Your task to perform on an android device: turn off picture-in-picture Image 0: 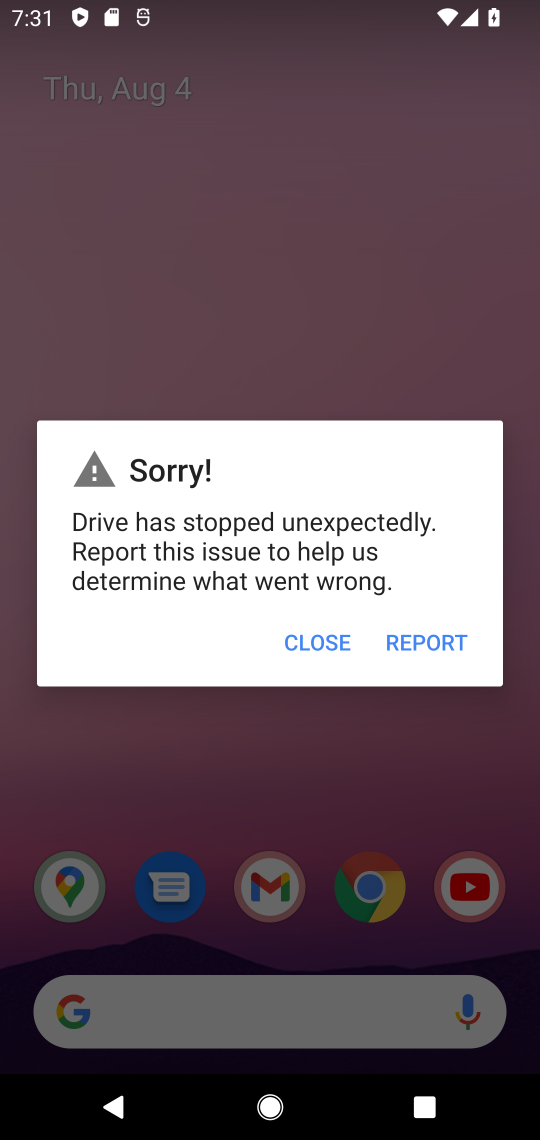
Step 0: click (317, 650)
Your task to perform on an android device: turn off picture-in-picture Image 1: 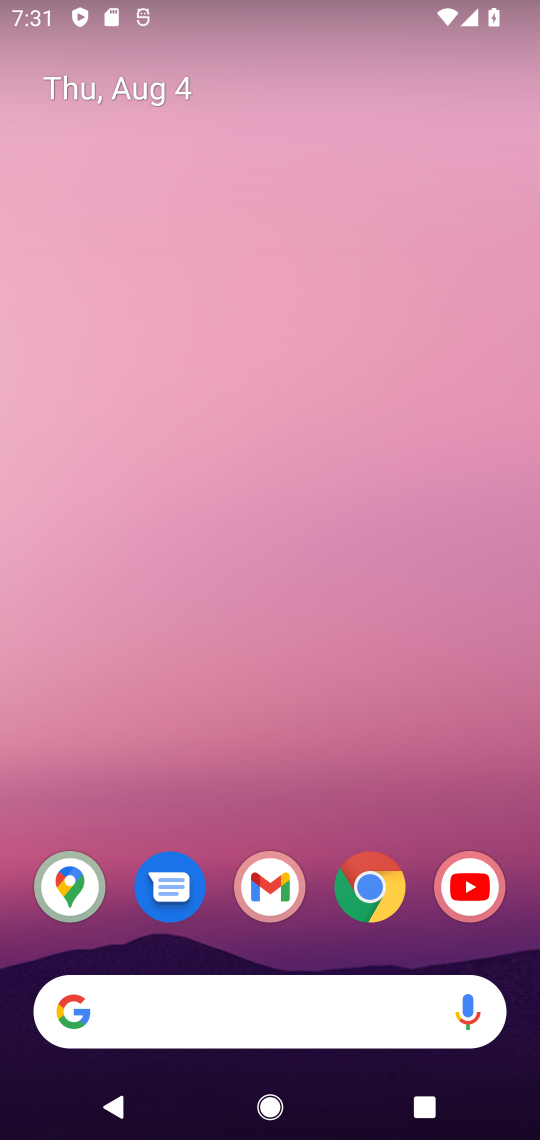
Step 1: click (366, 891)
Your task to perform on an android device: turn off picture-in-picture Image 2: 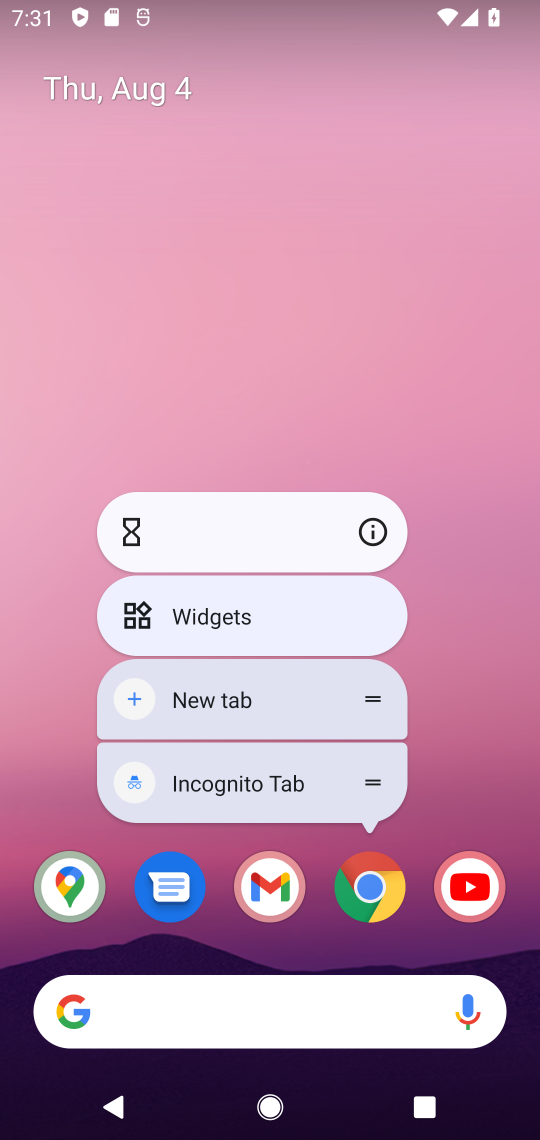
Step 2: click (366, 525)
Your task to perform on an android device: turn off picture-in-picture Image 3: 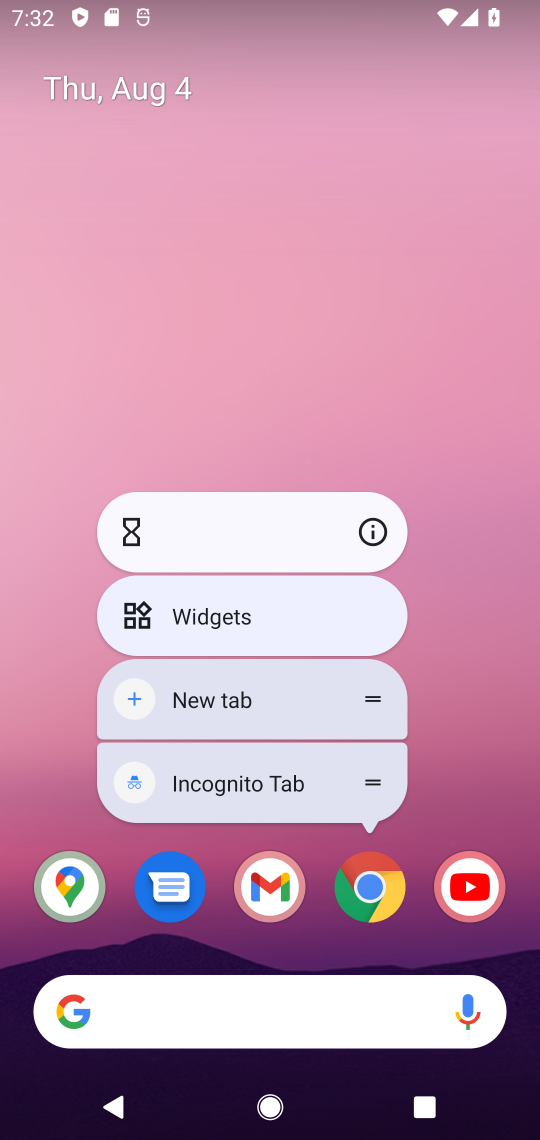
Step 3: click (372, 533)
Your task to perform on an android device: turn off picture-in-picture Image 4: 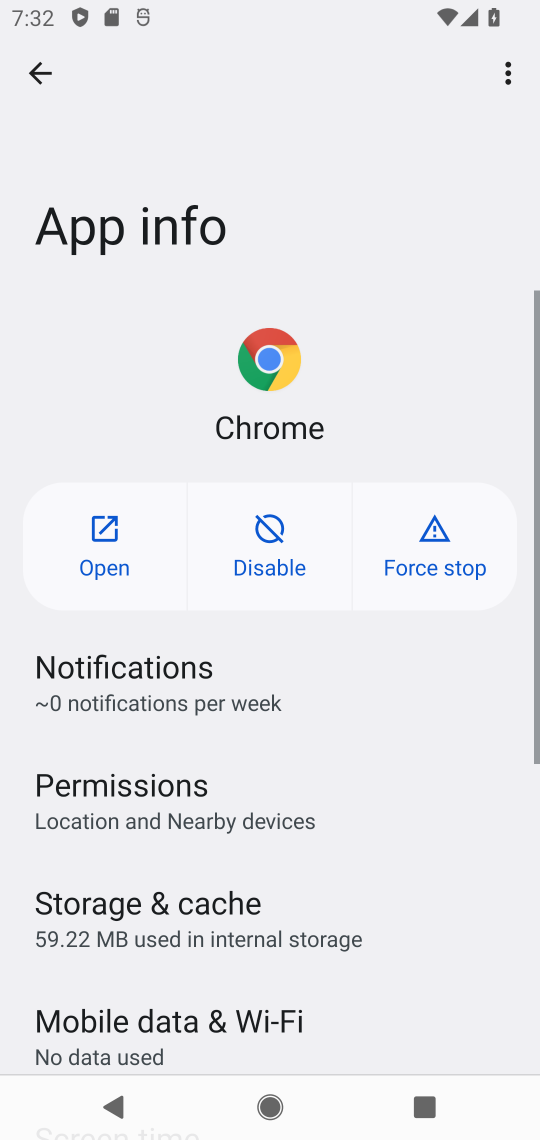
Step 4: drag from (286, 1024) to (204, 532)
Your task to perform on an android device: turn off picture-in-picture Image 5: 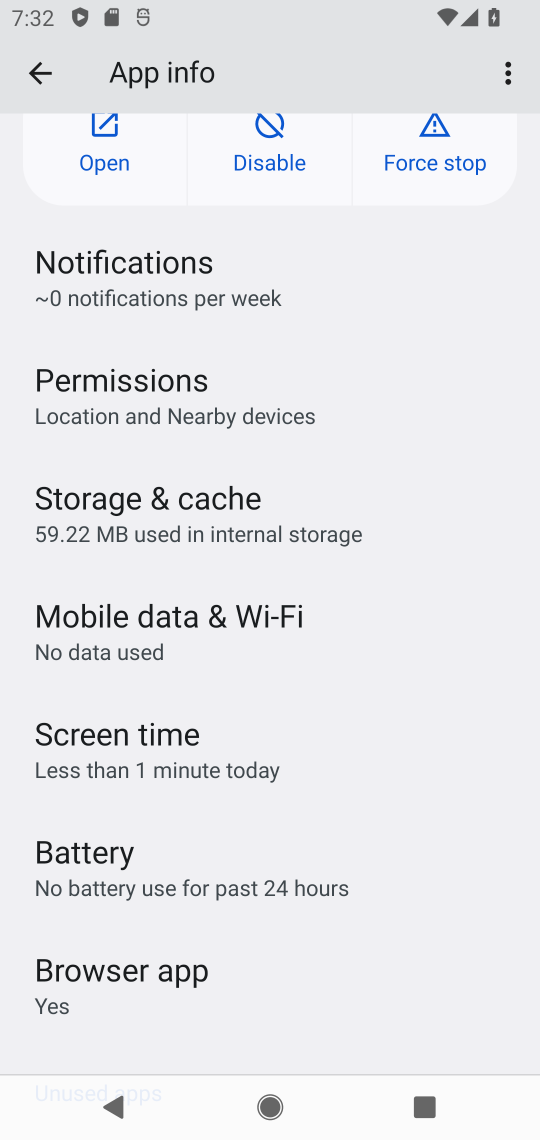
Step 5: drag from (143, 1029) to (118, 442)
Your task to perform on an android device: turn off picture-in-picture Image 6: 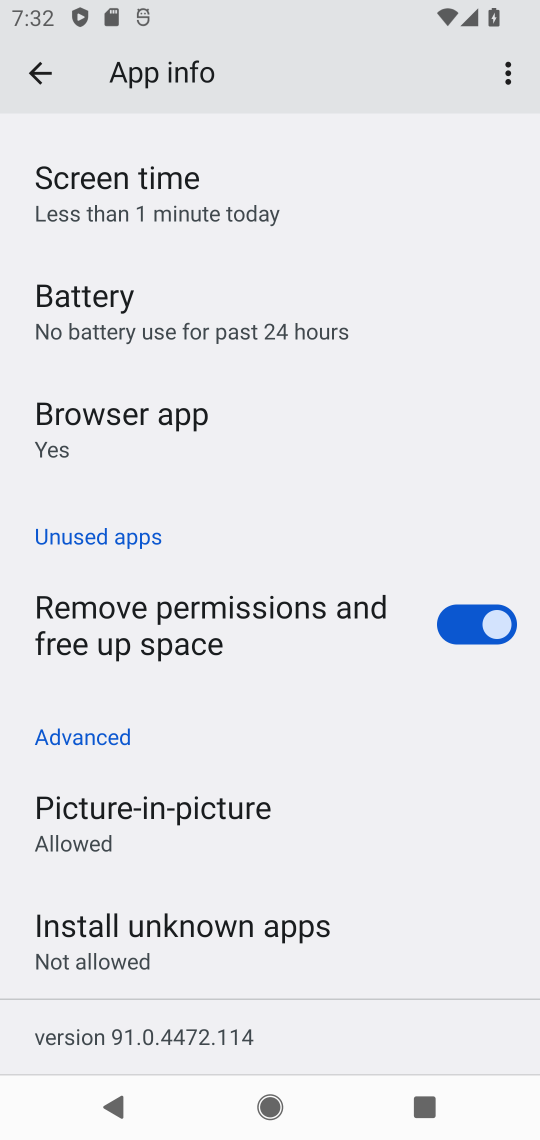
Step 6: click (191, 824)
Your task to perform on an android device: turn off picture-in-picture Image 7: 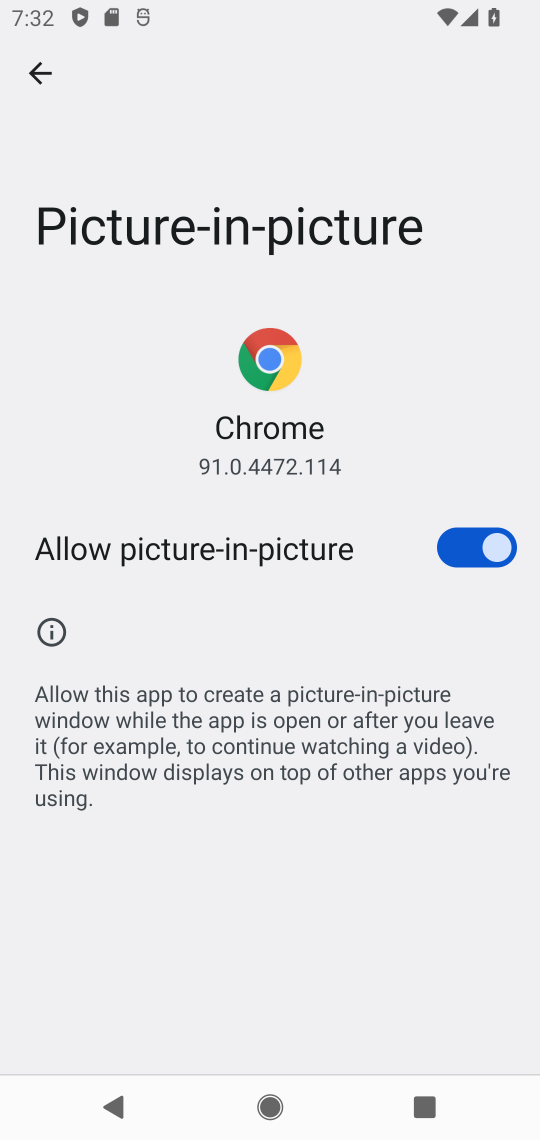
Step 7: click (463, 558)
Your task to perform on an android device: turn off picture-in-picture Image 8: 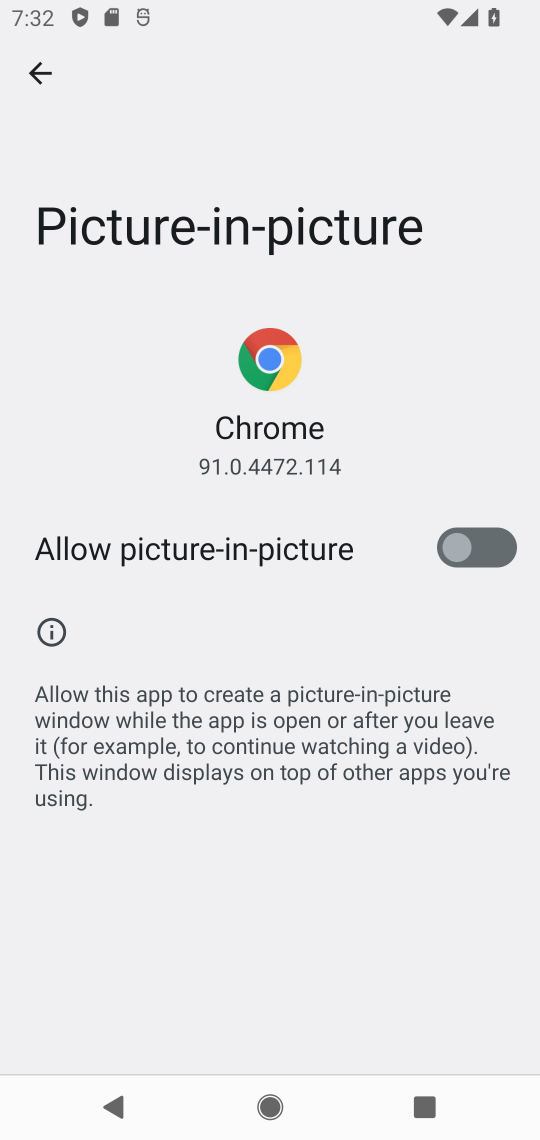
Step 8: task complete